Your task to perform on an android device: Open the phone app and click the voicemail tab. Image 0: 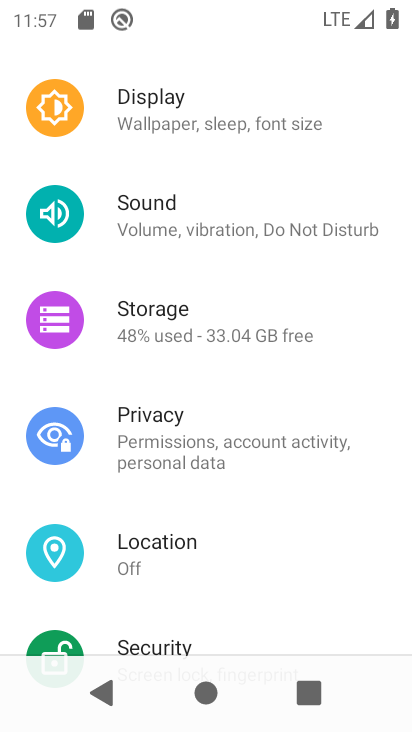
Step 0: press home button
Your task to perform on an android device: Open the phone app and click the voicemail tab. Image 1: 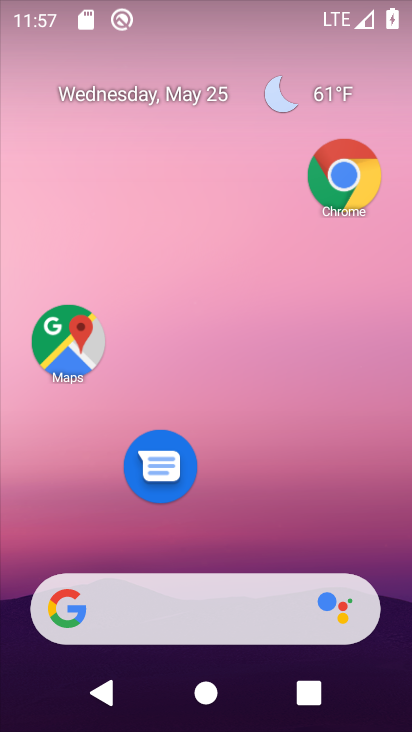
Step 1: drag from (259, 526) to (331, 130)
Your task to perform on an android device: Open the phone app and click the voicemail tab. Image 2: 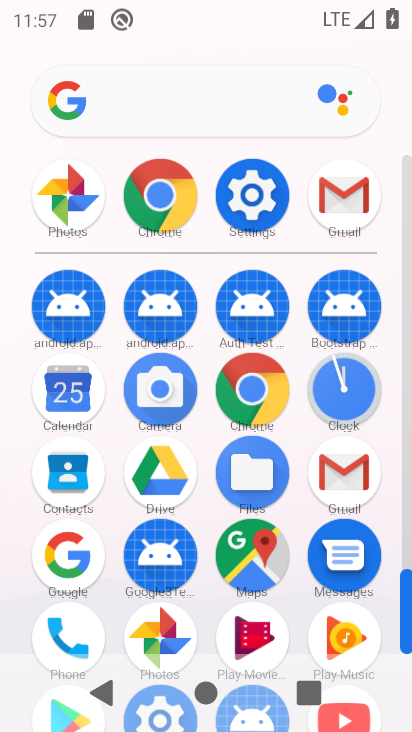
Step 2: drag from (207, 519) to (281, 207)
Your task to perform on an android device: Open the phone app and click the voicemail tab. Image 3: 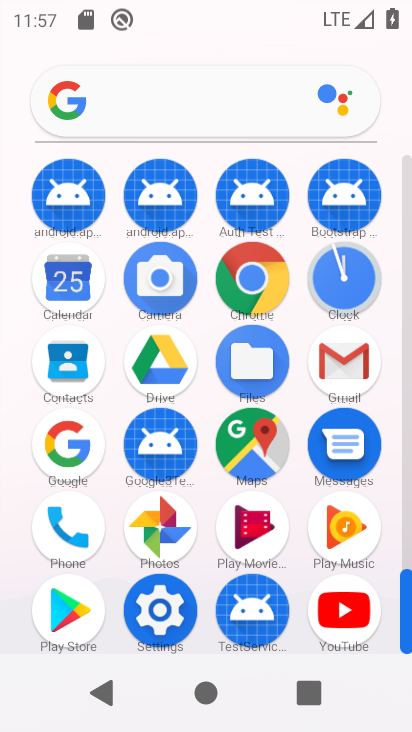
Step 3: click (75, 528)
Your task to perform on an android device: Open the phone app and click the voicemail tab. Image 4: 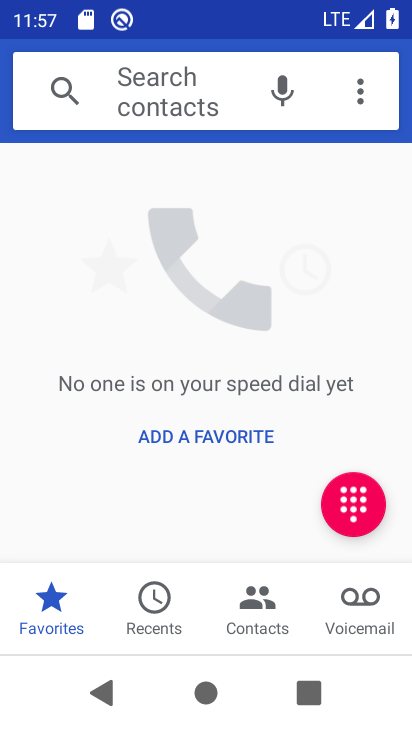
Step 4: click (354, 606)
Your task to perform on an android device: Open the phone app and click the voicemail tab. Image 5: 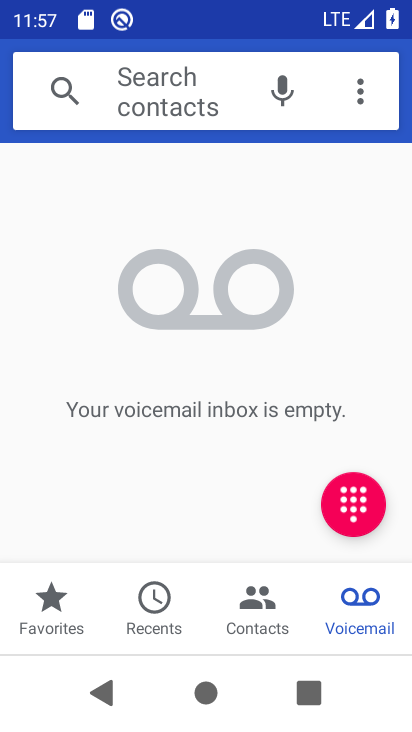
Step 5: press back button
Your task to perform on an android device: Open the phone app and click the voicemail tab. Image 6: 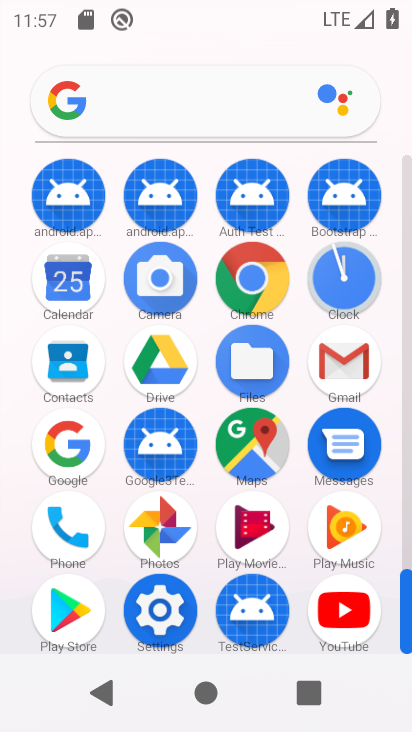
Step 6: press home button
Your task to perform on an android device: Open the phone app and click the voicemail tab. Image 7: 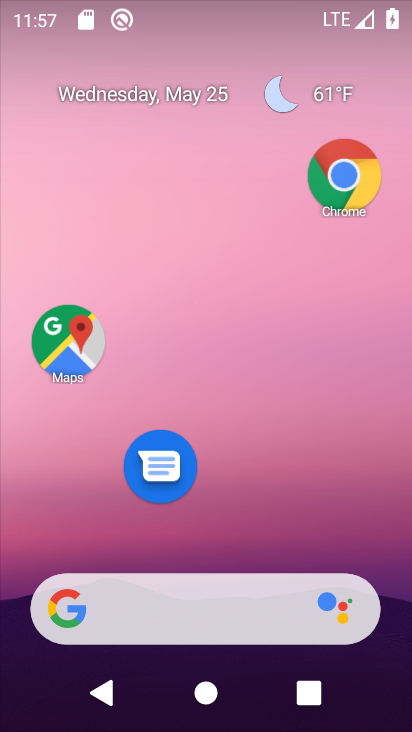
Step 7: drag from (216, 561) to (285, 148)
Your task to perform on an android device: Open the phone app and click the voicemail tab. Image 8: 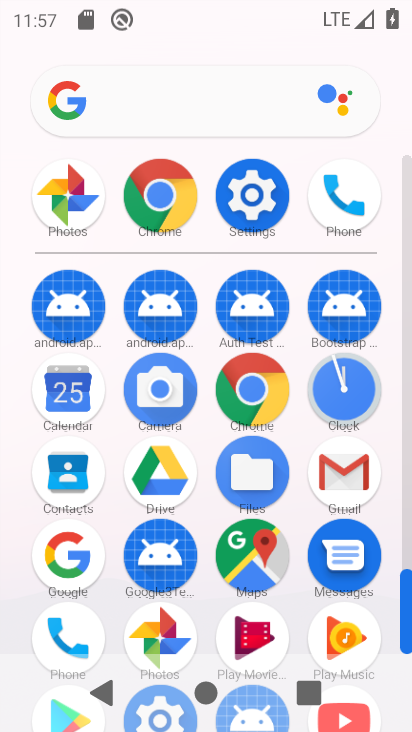
Step 8: click (70, 625)
Your task to perform on an android device: Open the phone app and click the voicemail tab. Image 9: 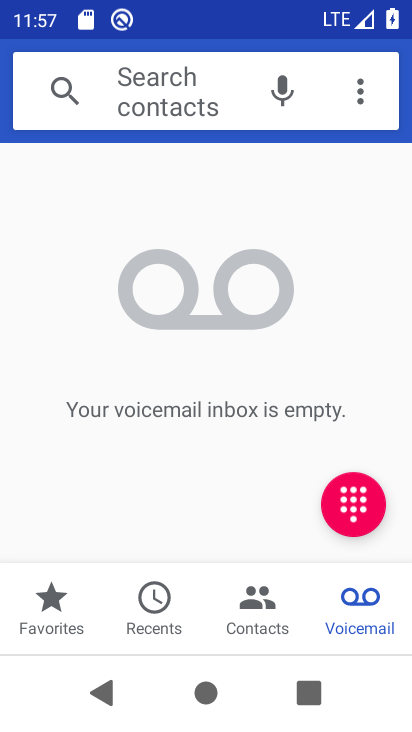
Step 9: click (364, 610)
Your task to perform on an android device: Open the phone app and click the voicemail tab. Image 10: 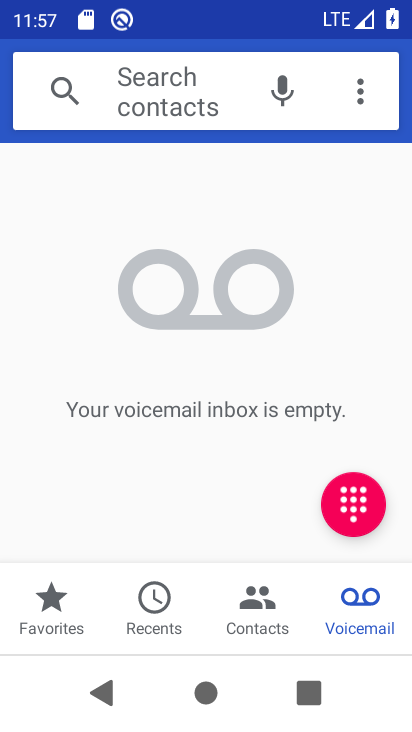
Step 10: task complete